Your task to perform on an android device: turn pop-ups off in chrome Image 0: 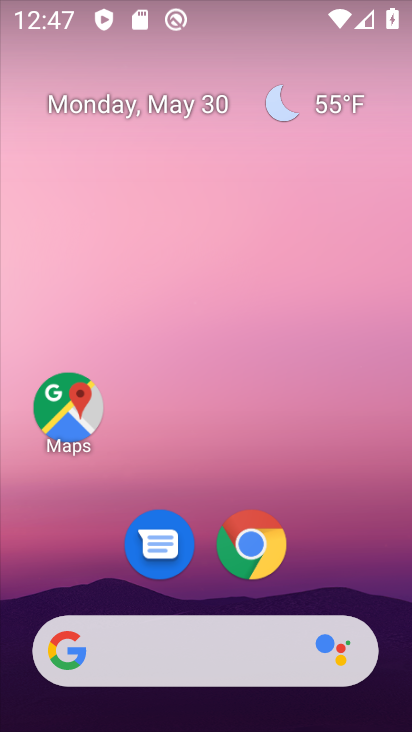
Step 0: press home button
Your task to perform on an android device: turn pop-ups off in chrome Image 1: 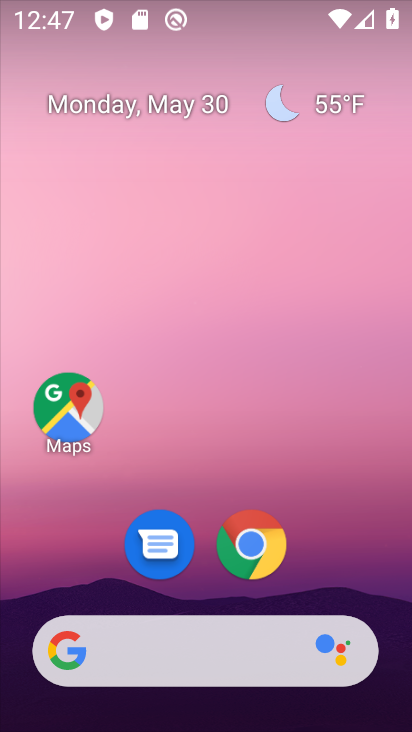
Step 1: click (267, 552)
Your task to perform on an android device: turn pop-ups off in chrome Image 2: 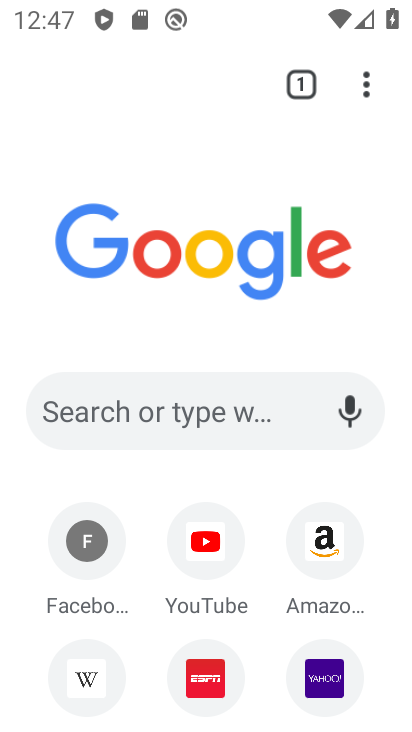
Step 2: click (359, 71)
Your task to perform on an android device: turn pop-ups off in chrome Image 3: 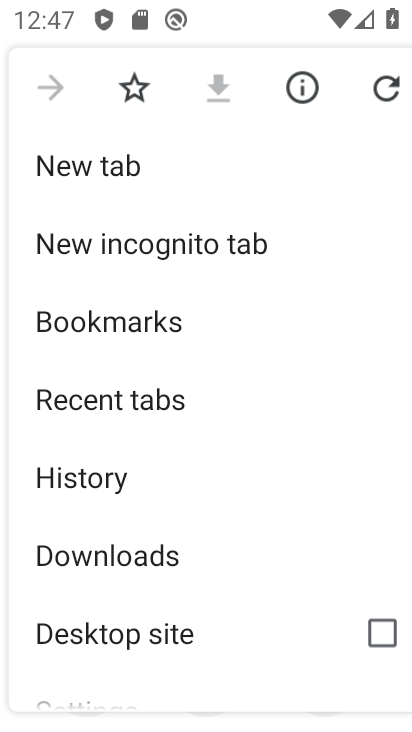
Step 3: drag from (188, 608) to (166, 310)
Your task to perform on an android device: turn pop-ups off in chrome Image 4: 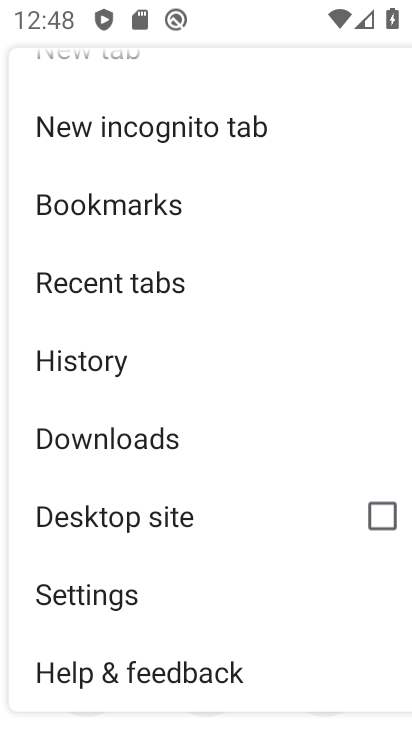
Step 4: click (104, 610)
Your task to perform on an android device: turn pop-ups off in chrome Image 5: 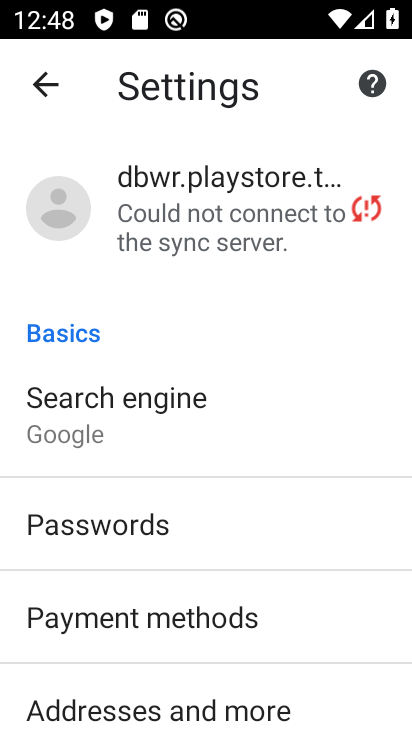
Step 5: drag from (178, 607) to (172, 373)
Your task to perform on an android device: turn pop-ups off in chrome Image 6: 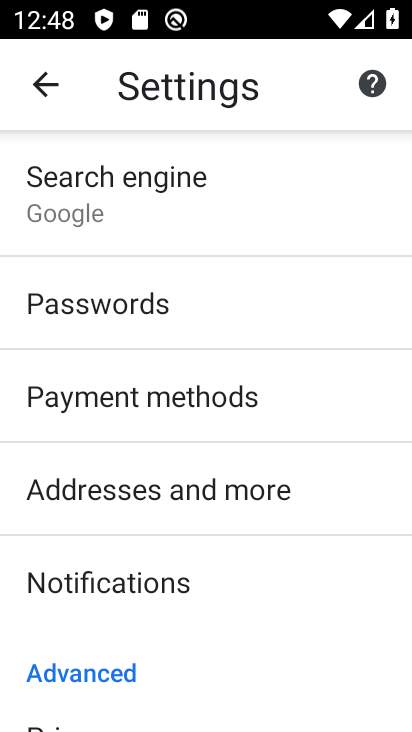
Step 6: drag from (194, 633) to (170, 333)
Your task to perform on an android device: turn pop-ups off in chrome Image 7: 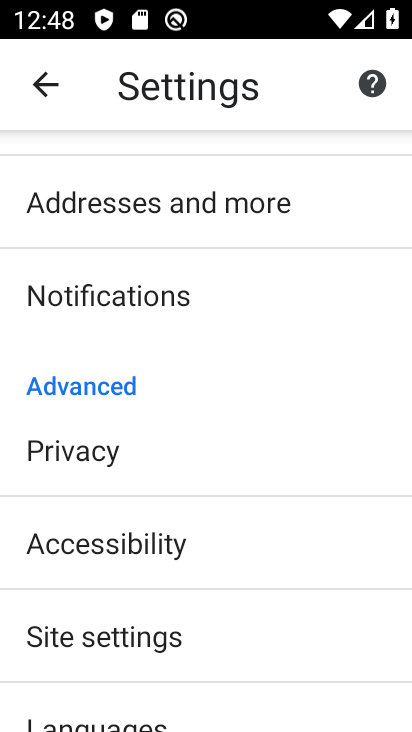
Step 7: click (165, 613)
Your task to perform on an android device: turn pop-ups off in chrome Image 8: 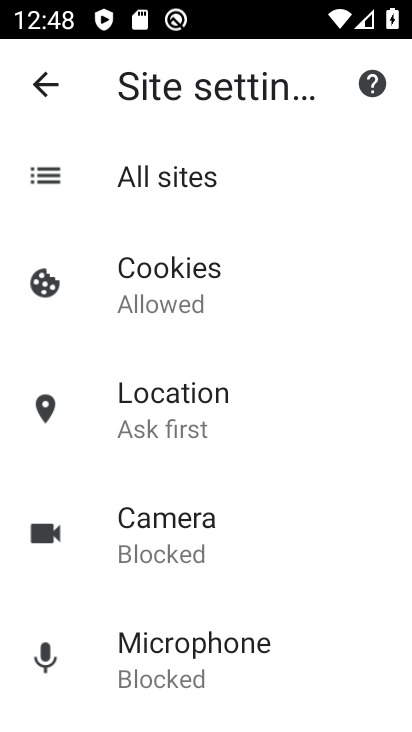
Step 8: drag from (229, 633) to (214, 323)
Your task to perform on an android device: turn pop-ups off in chrome Image 9: 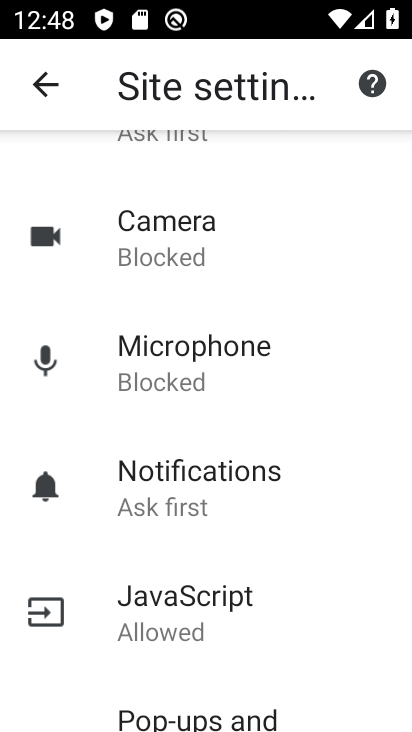
Step 9: drag from (205, 676) to (201, 498)
Your task to perform on an android device: turn pop-ups off in chrome Image 10: 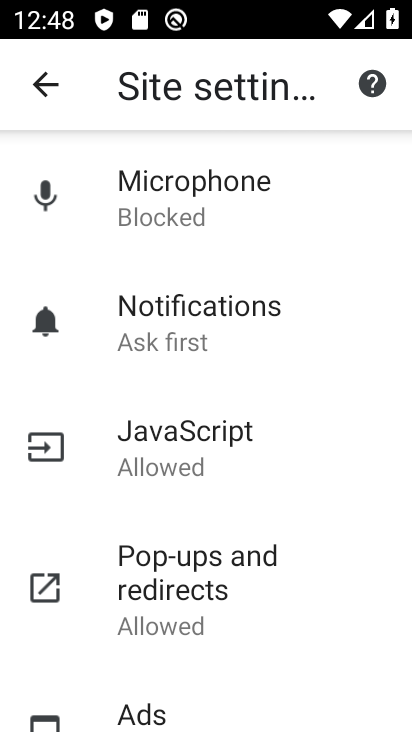
Step 10: click (187, 603)
Your task to perform on an android device: turn pop-ups off in chrome Image 11: 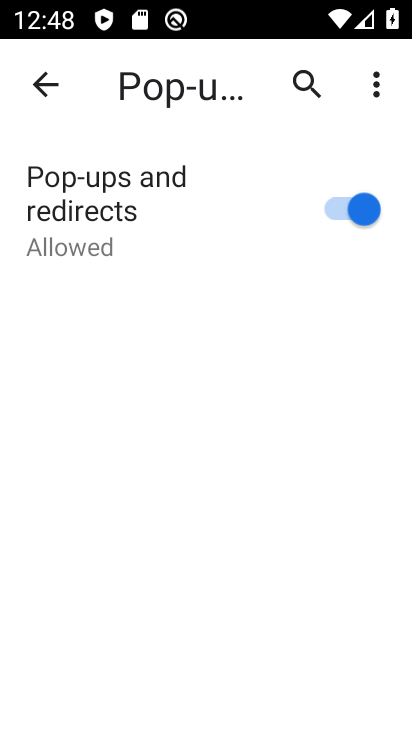
Step 11: click (344, 203)
Your task to perform on an android device: turn pop-ups off in chrome Image 12: 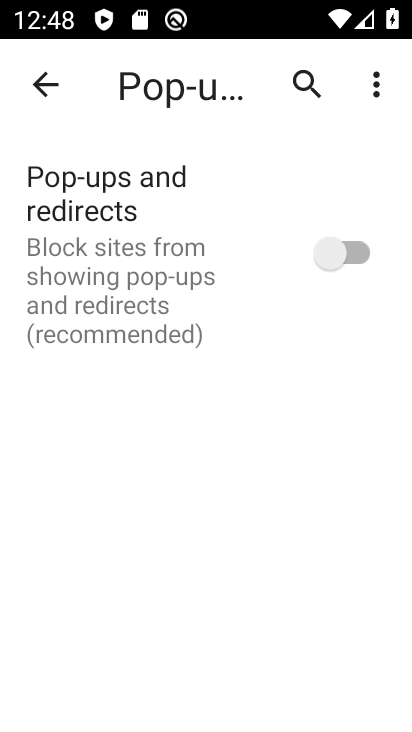
Step 12: task complete